Your task to perform on an android device: toggle pop-ups in chrome Image 0: 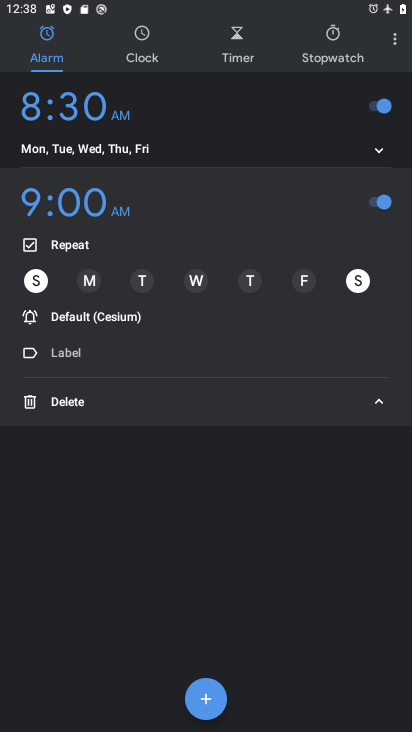
Step 0: press home button
Your task to perform on an android device: toggle pop-ups in chrome Image 1: 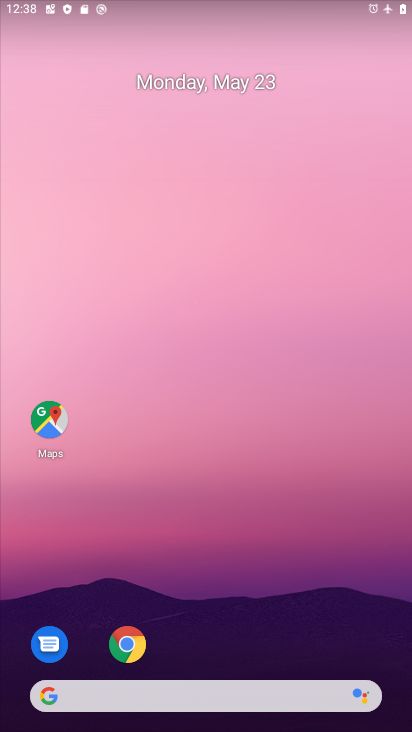
Step 1: drag from (304, 612) to (178, 8)
Your task to perform on an android device: toggle pop-ups in chrome Image 2: 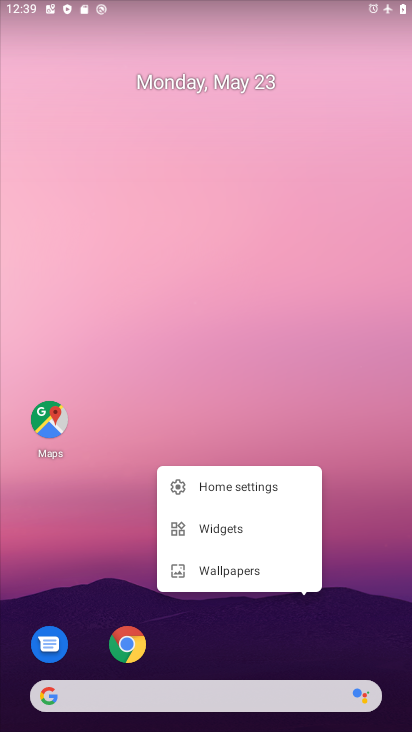
Step 2: click (226, 269)
Your task to perform on an android device: toggle pop-ups in chrome Image 3: 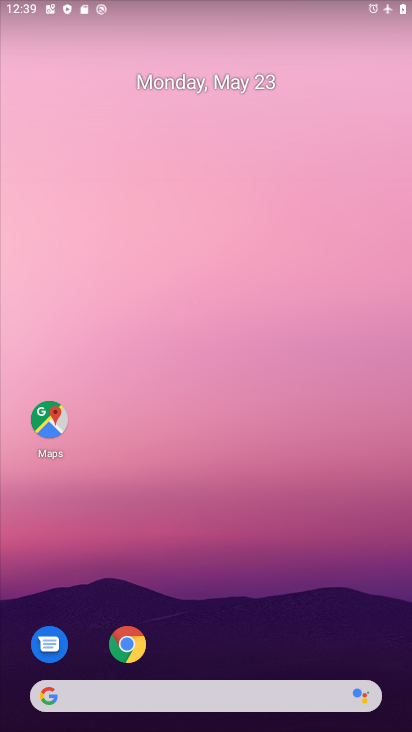
Step 3: drag from (288, 645) to (258, 35)
Your task to perform on an android device: toggle pop-ups in chrome Image 4: 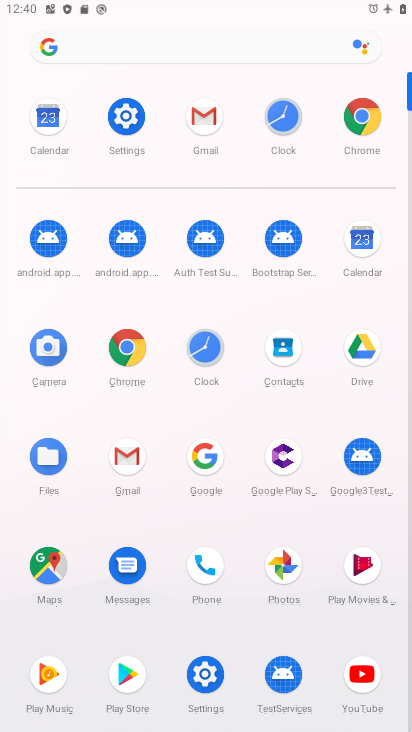
Step 4: click (358, 121)
Your task to perform on an android device: toggle pop-ups in chrome Image 5: 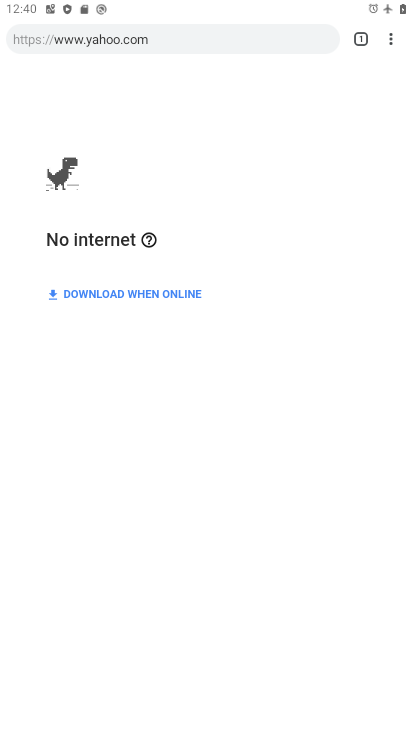
Step 5: click (387, 40)
Your task to perform on an android device: toggle pop-ups in chrome Image 6: 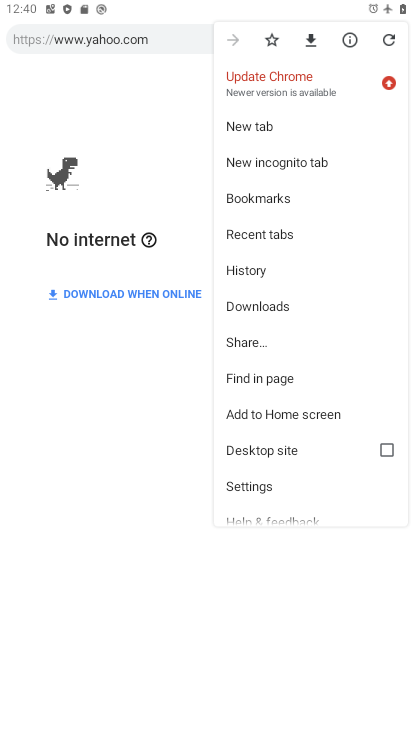
Step 6: click (283, 487)
Your task to perform on an android device: toggle pop-ups in chrome Image 7: 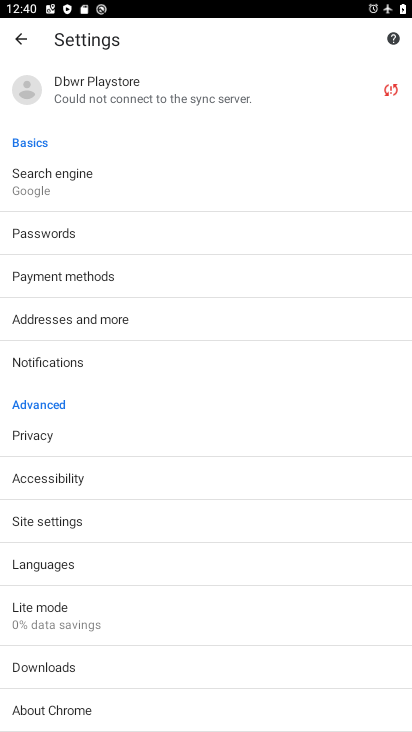
Step 7: click (113, 523)
Your task to perform on an android device: toggle pop-ups in chrome Image 8: 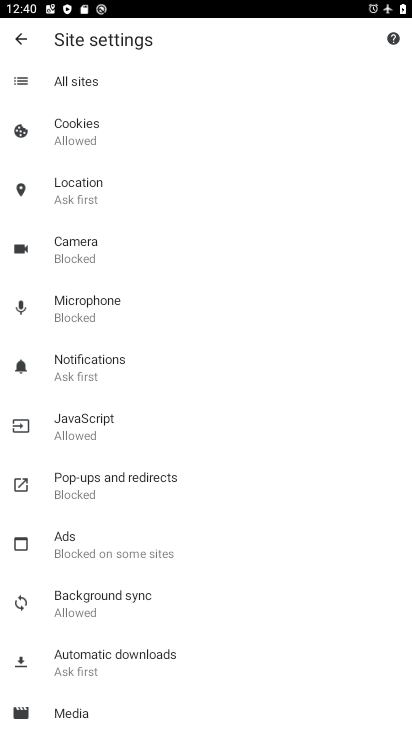
Step 8: click (121, 471)
Your task to perform on an android device: toggle pop-ups in chrome Image 9: 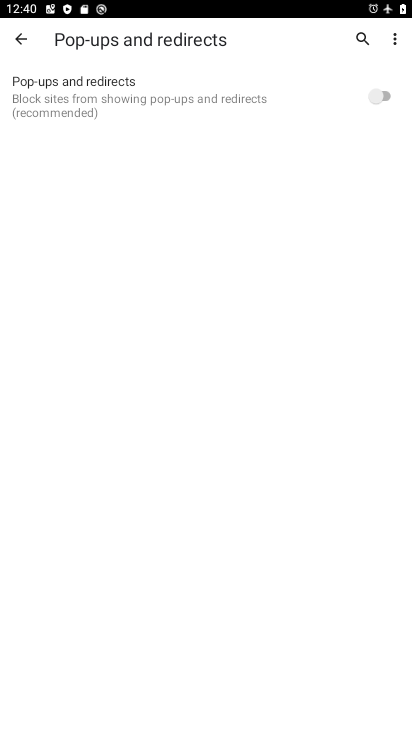
Step 9: click (281, 98)
Your task to perform on an android device: toggle pop-ups in chrome Image 10: 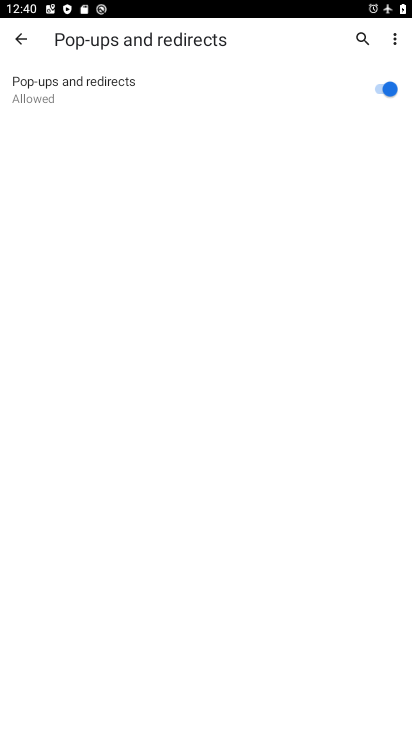
Step 10: task complete